Your task to perform on an android device: check the backup settings in the google photos Image 0: 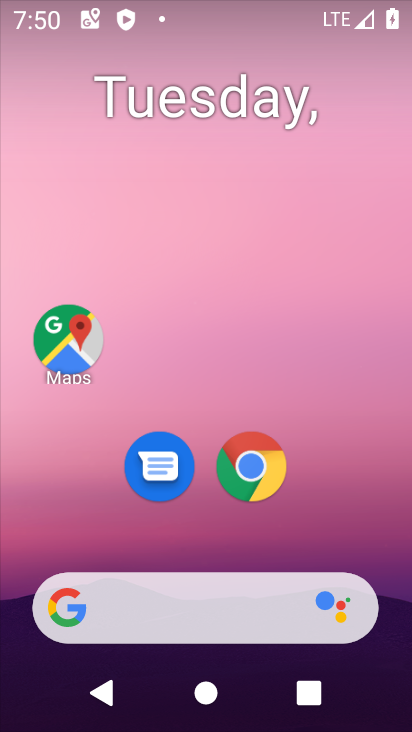
Step 0: drag from (362, 485) to (306, 166)
Your task to perform on an android device: check the backup settings in the google photos Image 1: 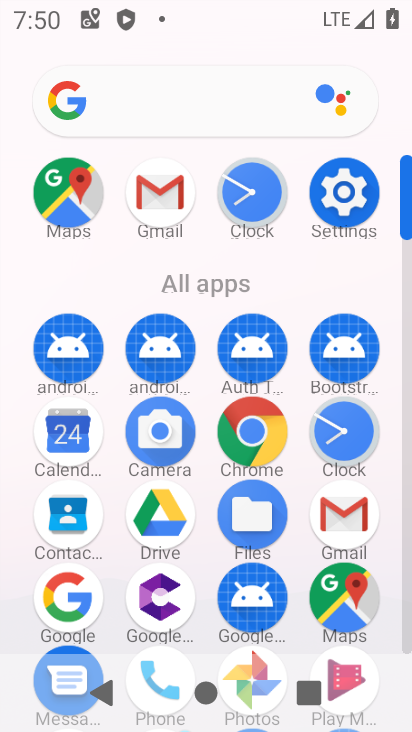
Step 1: click (253, 648)
Your task to perform on an android device: check the backup settings in the google photos Image 2: 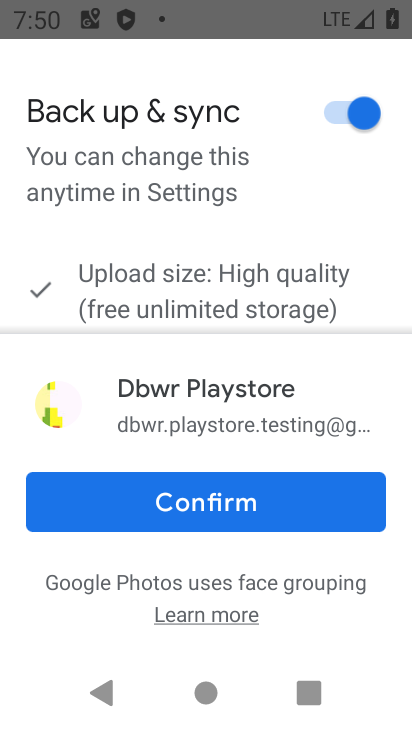
Step 2: click (201, 527)
Your task to perform on an android device: check the backup settings in the google photos Image 3: 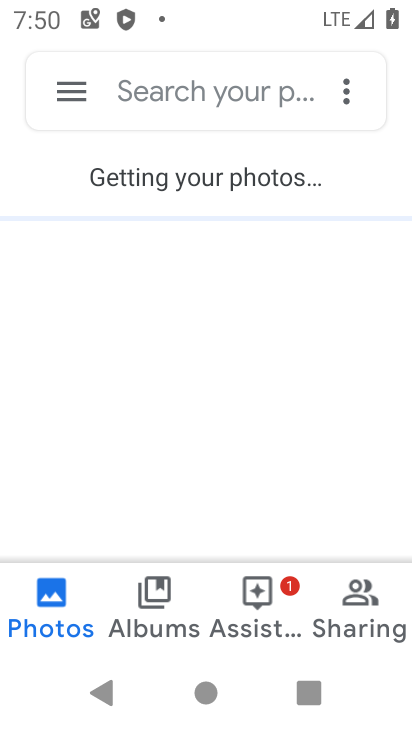
Step 3: click (71, 97)
Your task to perform on an android device: check the backup settings in the google photos Image 4: 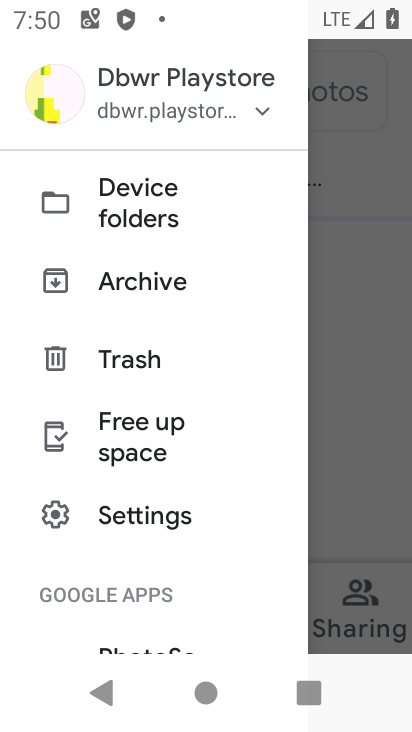
Step 4: click (159, 507)
Your task to perform on an android device: check the backup settings in the google photos Image 5: 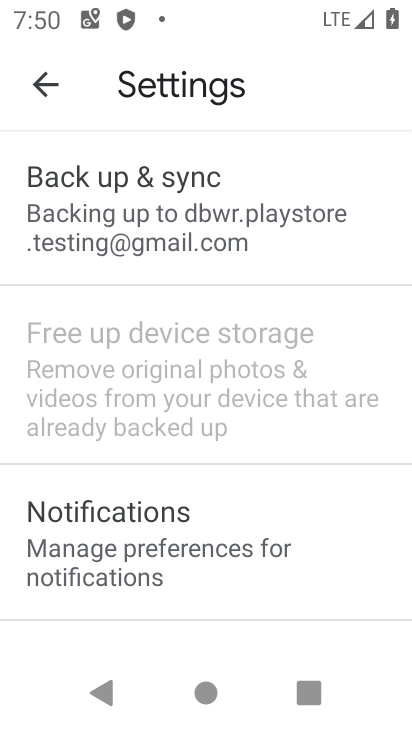
Step 5: click (262, 198)
Your task to perform on an android device: check the backup settings in the google photos Image 6: 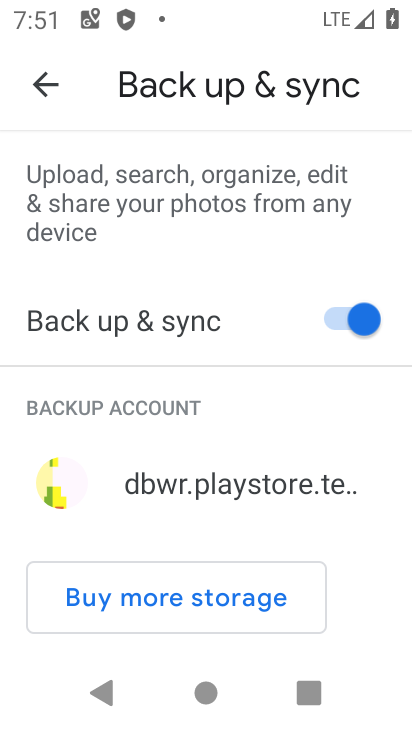
Step 6: task complete